Your task to perform on an android device: turn off data saver in the chrome app Image 0: 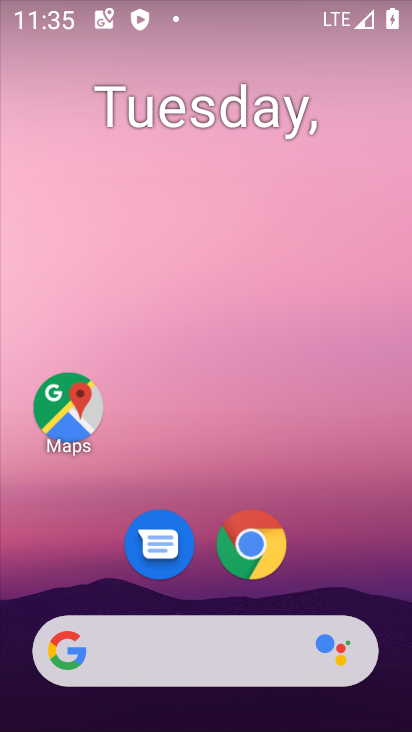
Step 0: drag from (386, 622) to (305, 49)
Your task to perform on an android device: turn off data saver in the chrome app Image 1: 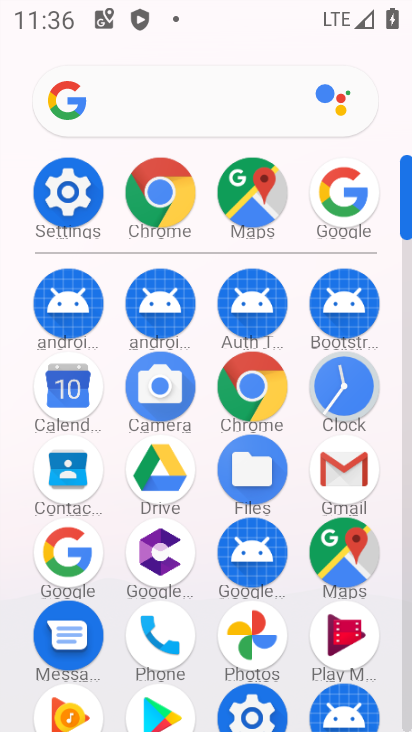
Step 1: click (169, 206)
Your task to perform on an android device: turn off data saver in the chrome app Image 2: 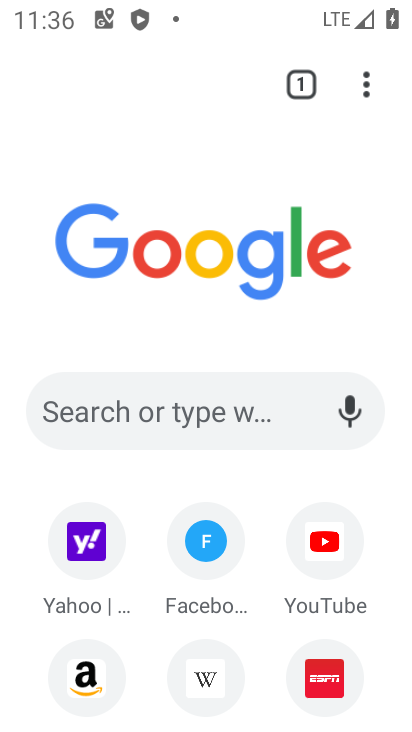
Step 2: click (366, 84)
Your task to perform on an android device: turn off data saver in the chrome app Image 3: 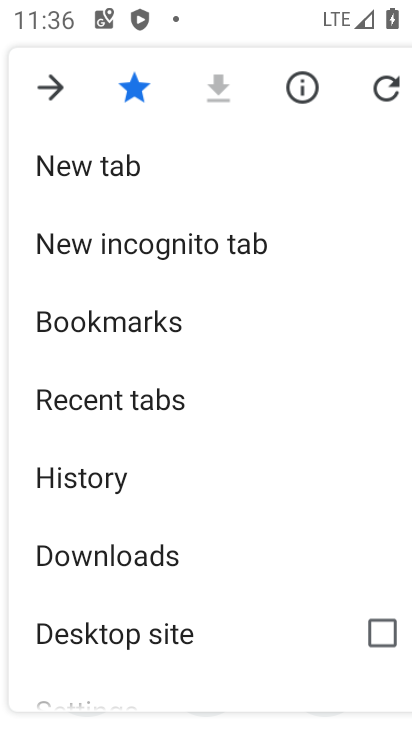
Step 3: drag from (131, 641) to (173, 161)
Your task to perform on an android device: turn off data saver in the chrome app Image 4: 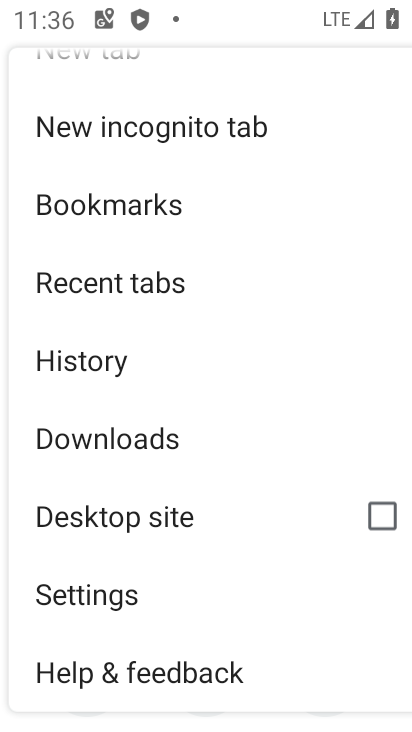
Step 4: click (122, 592)
Your task to perform on an android device: turn off data saver in the chrome app Image 5: 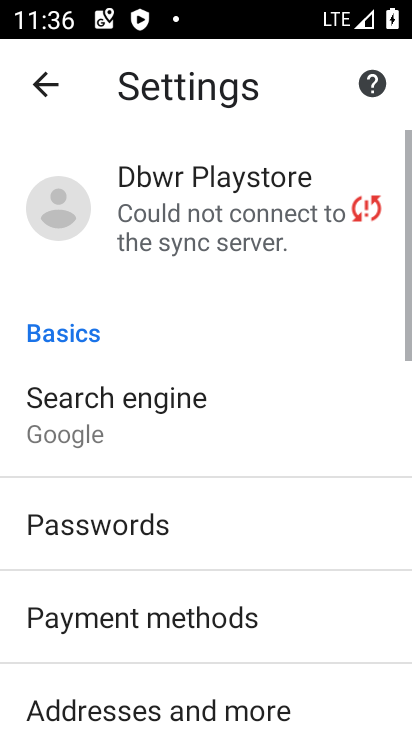
Step 5: drag from (149, 649) to (188, 68)
Your task to perform on an android device: turn off data saver in the chrome app Image 6: 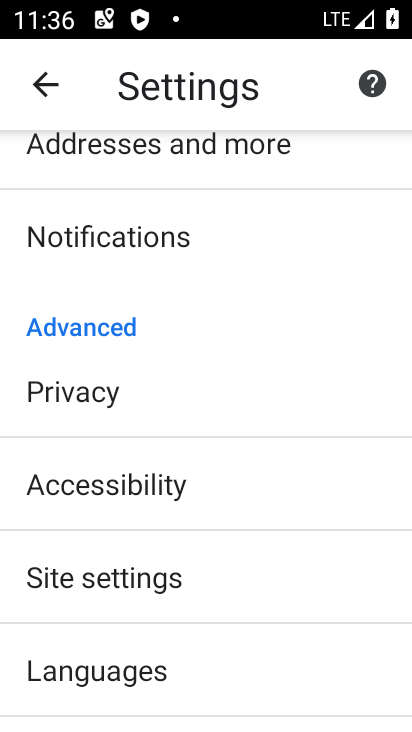
Step 6: drag from (128, 659) to (169, 166)
Your task to perform on an android device: turn off data saver in the chrome app Image 7: 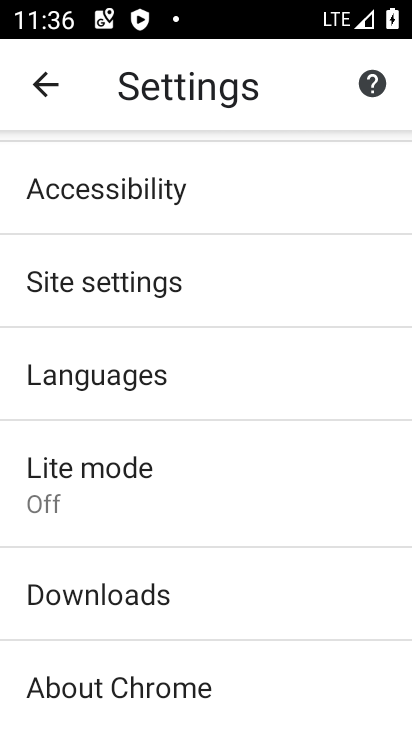
Step 7: click (171, 519)
Your task to perform on an android device: turn off data saver in the chrome app Image 8: 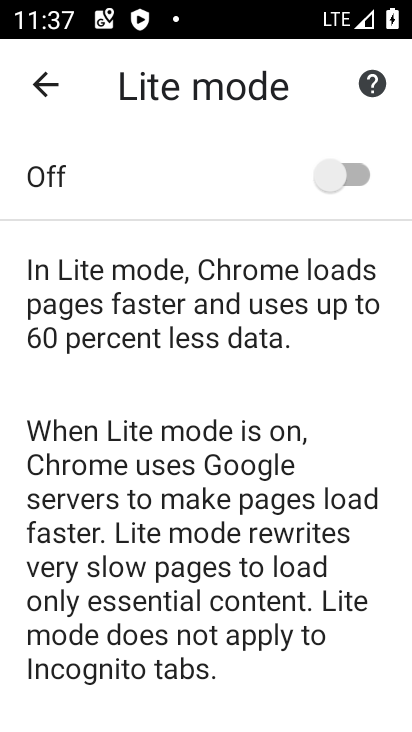
Step 8: task complete